Your task to perform on an android device: Check the weather Image 0: 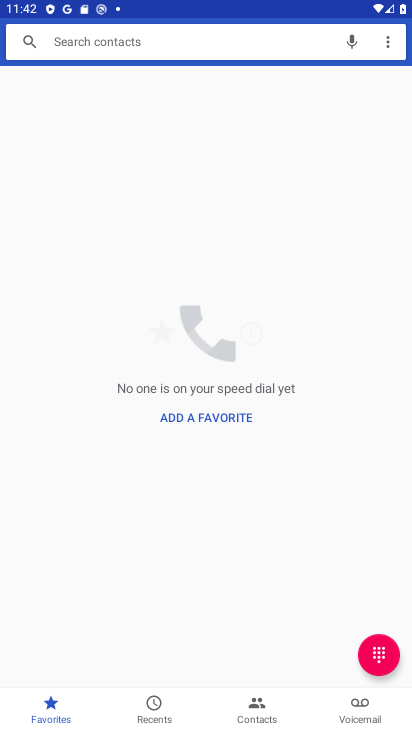
Step 0: press home button
Your task to perform on an android device: Check the weather Image 1: 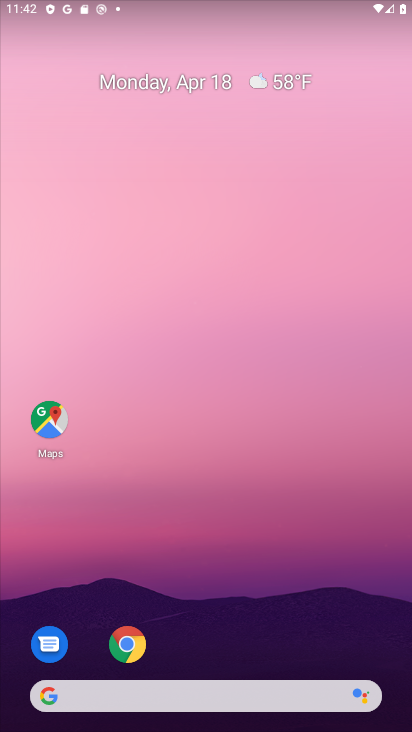
Step 1: drag from (36, 325) to (391, 324)
Your task to perform on an android device: Check the weather Image 2: 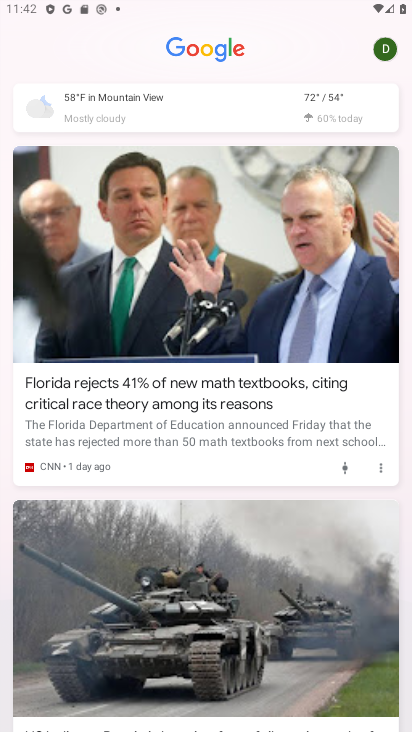
Step 2: click (129, 98)
Your task to perform on an android device: Check the weather Image 3: 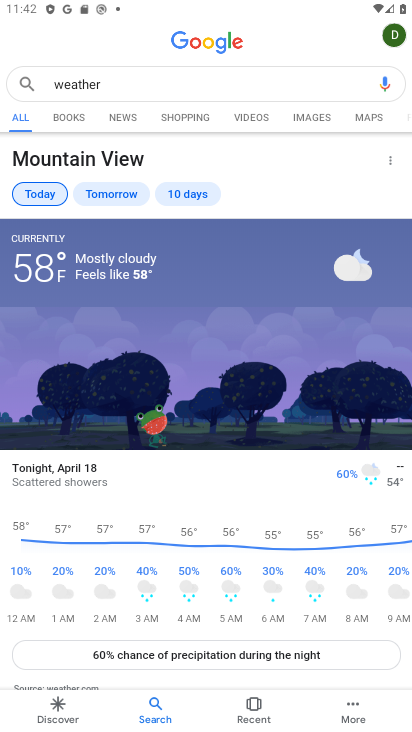
Step 3: task complete